Your task to perform on an android device: open wifi settings Image 0: 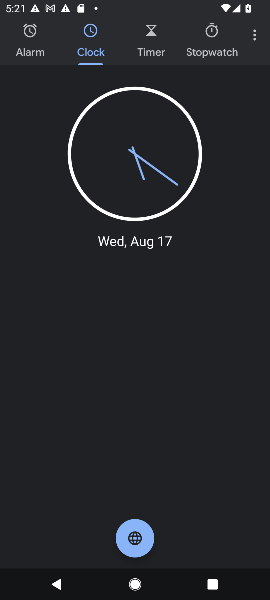
Step 0: press home button
Your task to perform on an android device: open wifi settings Image 1: 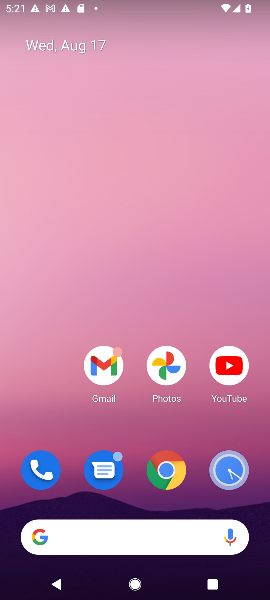
Step 1: drag from (130, 504) to (97, 8)
Your task to perform on an android device: open wifi settings Image 2: 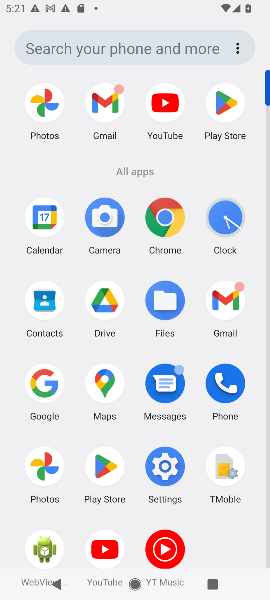
Step 2: click (161, 472)
Your task to perform on an android device: open wifi settings Image 3: 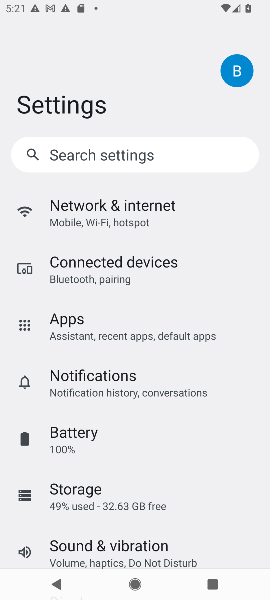
Step 3: click (139, 212)
Your task to perform on an android device: open wifi settings Image 4: 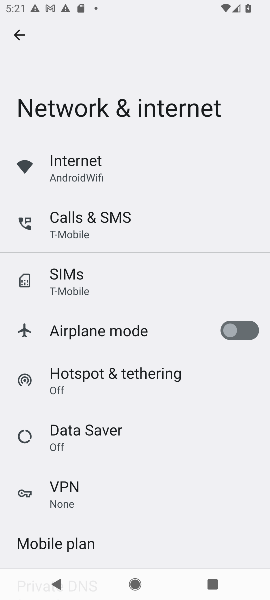
Step 4: click (91, 181)
Your task to perform on an android device: open wifi settings Image 5: 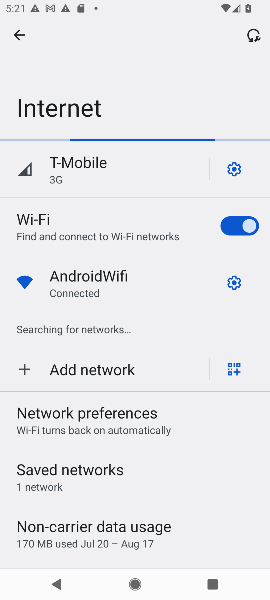
Step 5: task complete